Your task to perform on an android device: toggle wifi Image 0: 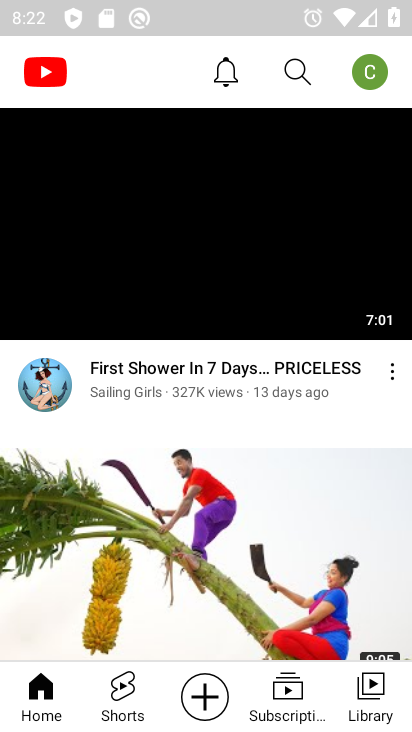
Step 0: press home button
Your task to perform on an android device: toggle wifi Image 1: 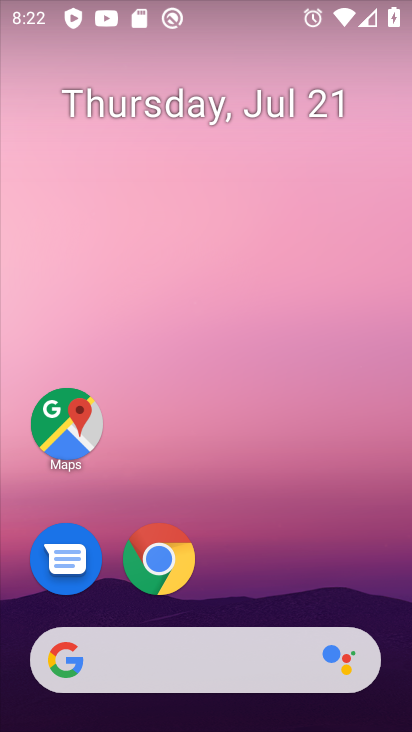
Step 1: drag from (370, 573) to (377, 177)
Your task to perform on an android device: toggle wifi Image 2: 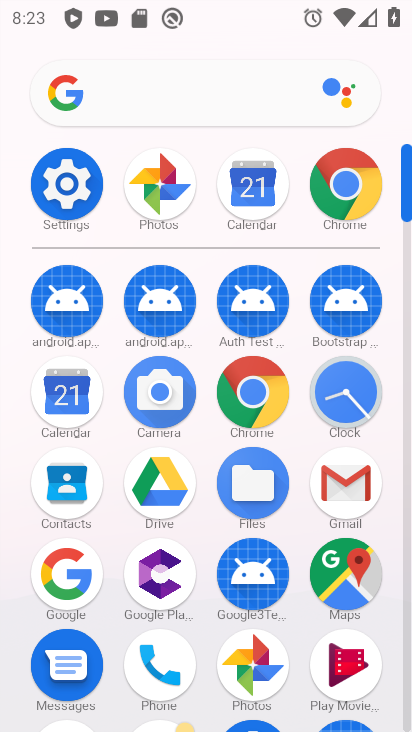
Step 2: click (75, 184)
Your task to perform on an android device: toggle wifi Image 3: 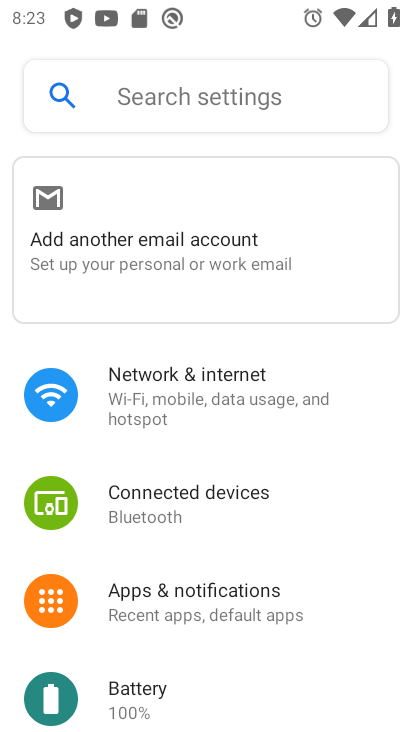
Step 3: drag from (376, 537) to (381, 423)
Your task to perform on an android device: toggle wifi Image 4: 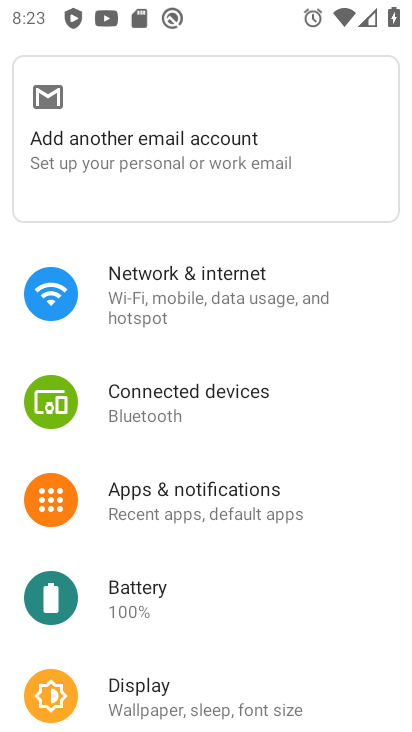
Step 4: drag from (332, 578) to (356, 395)
Your task to perform on an android device: toggle wifi Image 5: 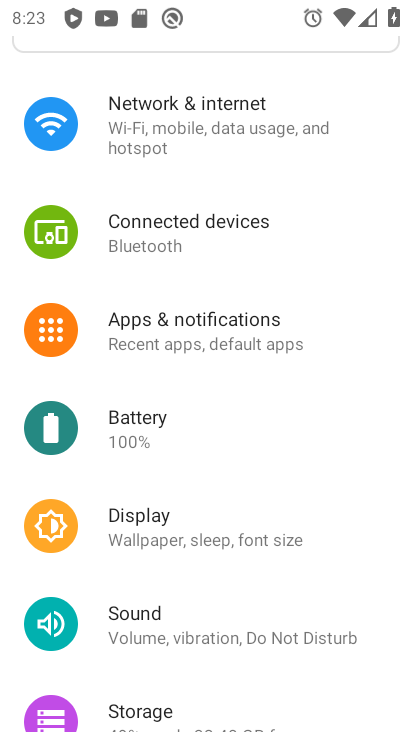
Step 5: drag from (338, 501) to (340, 413)
Your task to perform on an android device: toggle wifi Image 6: 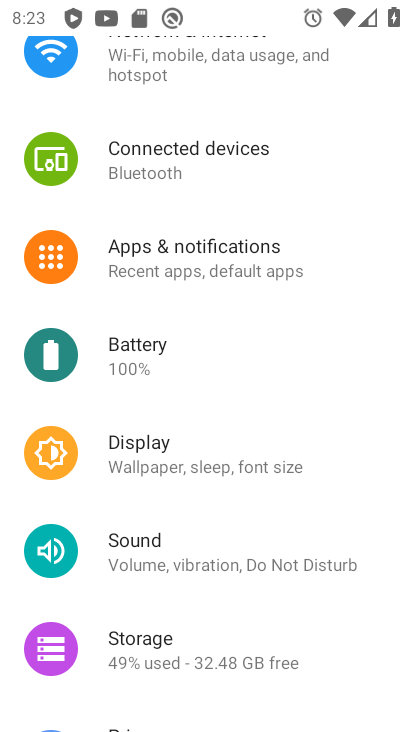
Step 6: drag from (370, 507) to (370, 341)
Your task to perform on an android device: toggle wifi Image 7: 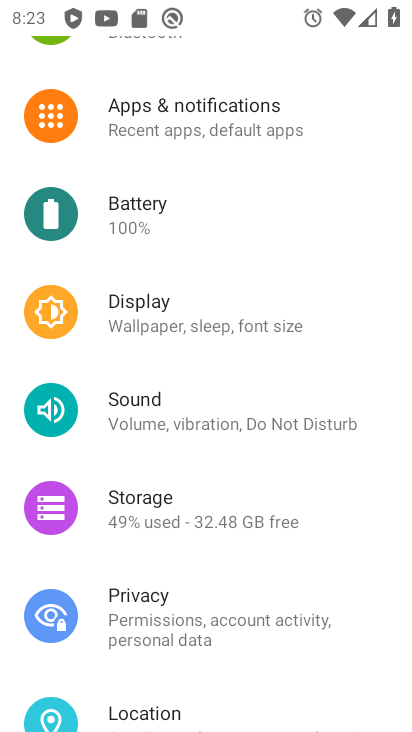
Step 7: drag from (375, 514) to (372, 305)
Your task to perform on an android device: toggle wifi Image 8: 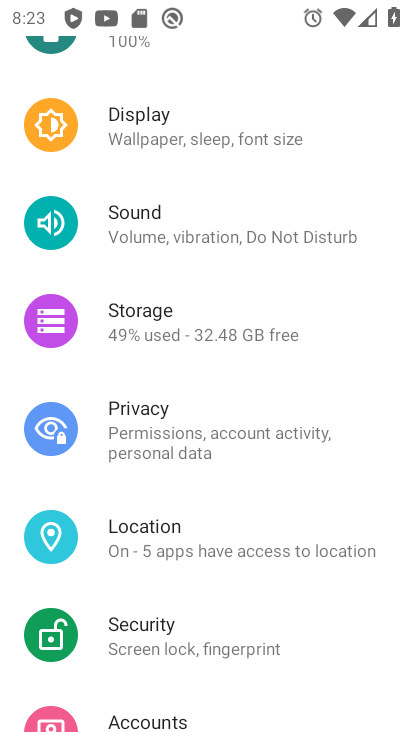
Step 8: drag from (370, 264) to (368, 350)
Your task to perform on an android device: toggle wifi Image 9: 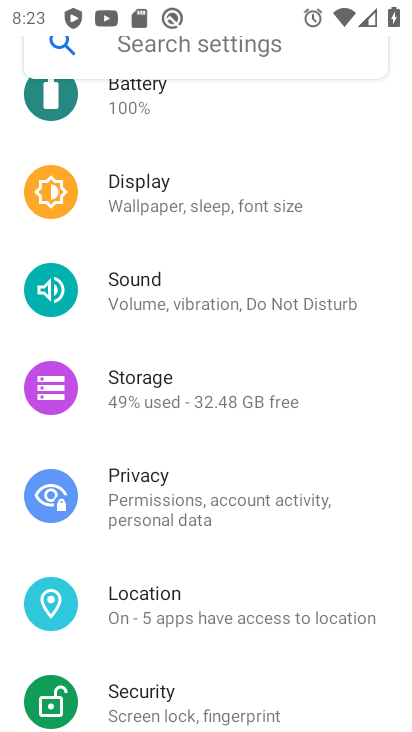
Step 9: drag from (364, 188) to (366, 308)
Your task to perform on an android device: toggle wifi Image 10: 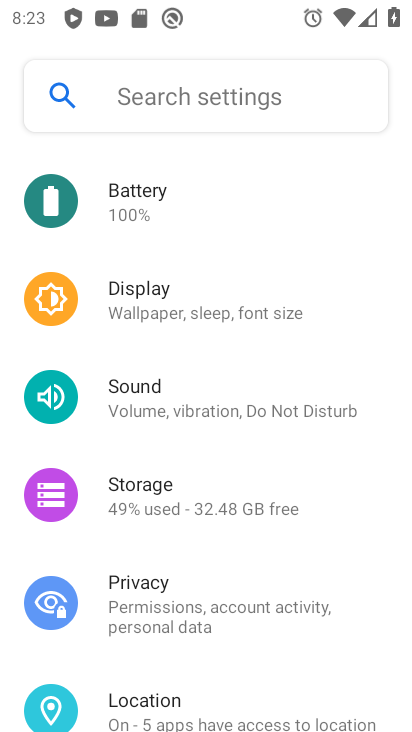
Step 10: drag from (364, 195) to (359, 337)
Your task to perform on an android device: toggle wifi Image 11: 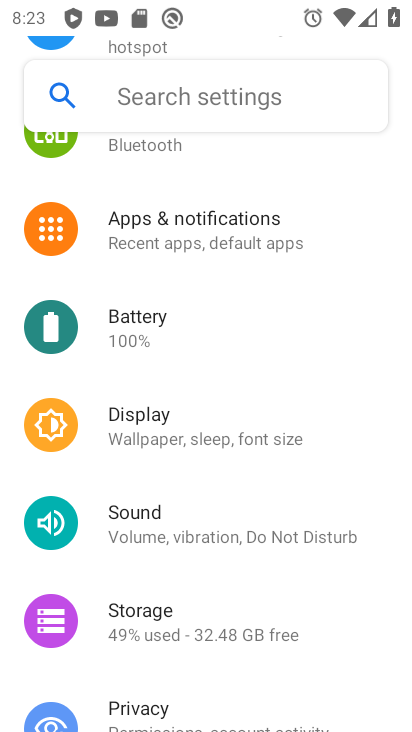
Step 11: drag from (373, 190) to (377, 350)
Your task to perform on an android device: toggle wifi Image 12: 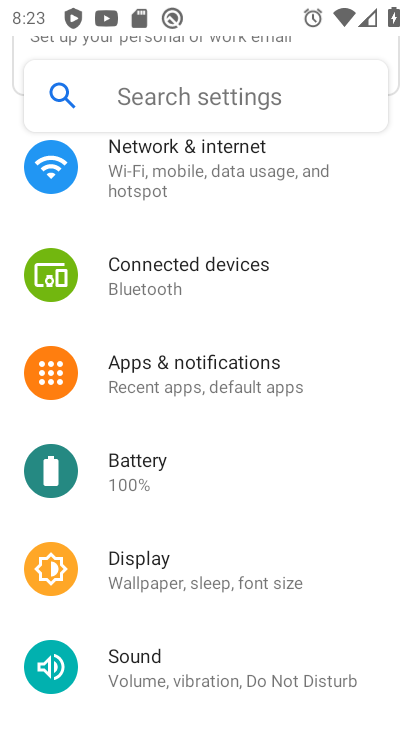
Step 12: drag from (375, 172) to (380, 329)
Your task to perform on an android device: toggle wifi Image 13: 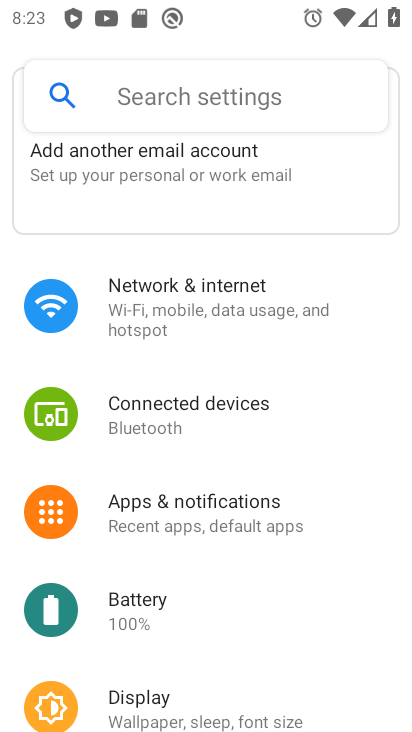
Step 13: click (329, 320)
Your task to perform on an android device: toggle wifi Image 14: 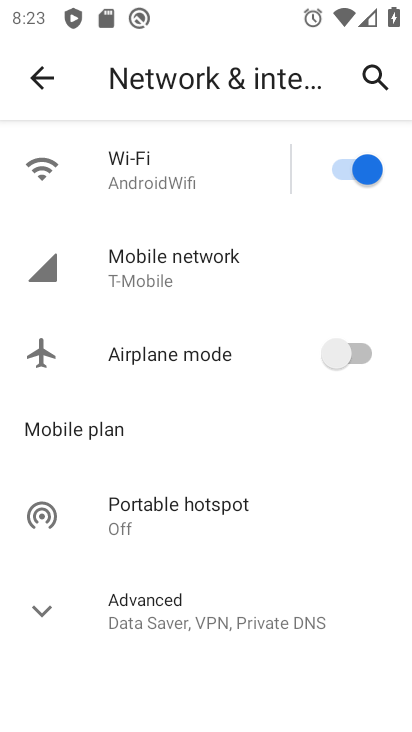
Step 14: click (368, 168)
Your task to perform on an android device: toggle wifi Image 15: 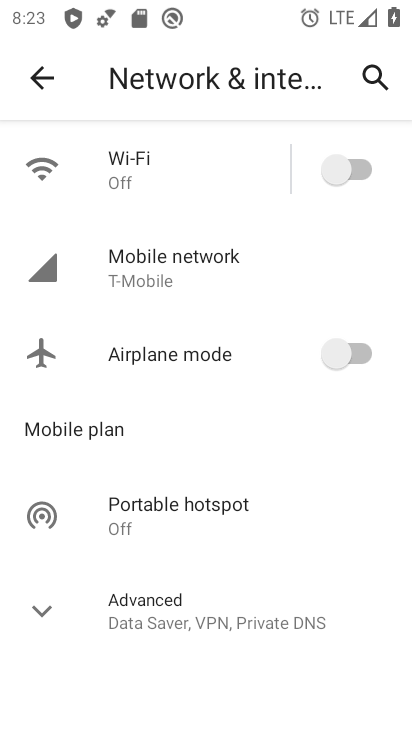
Step 15: task complete